Your task to perform on an android device: Open Youtube and go to "Your channel" Image 0: 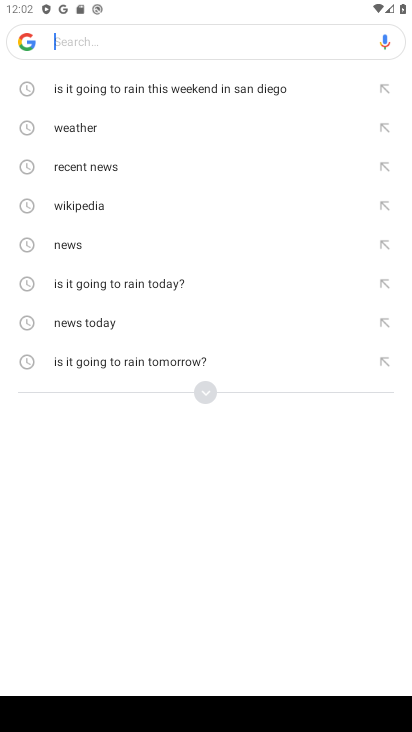
Step 0: press home button
Your task to perform on an android device: Open Youtube and go to "Your channel" Image 1: 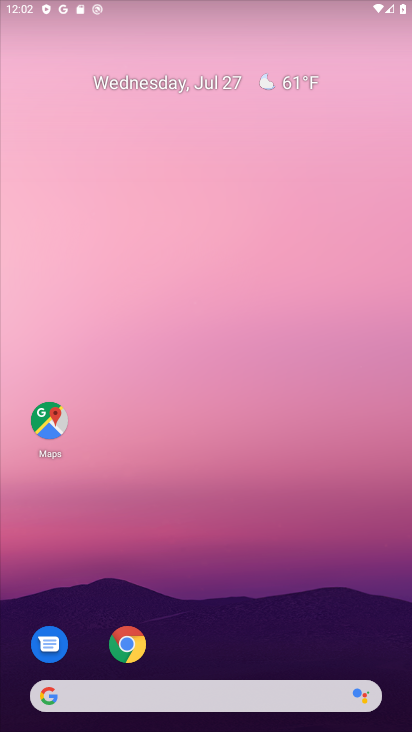
Step 1: drag from (152, 517) to (233, 30)
Your task to perform on an android device: Open Youtube and go to "Your channel" Image 2: 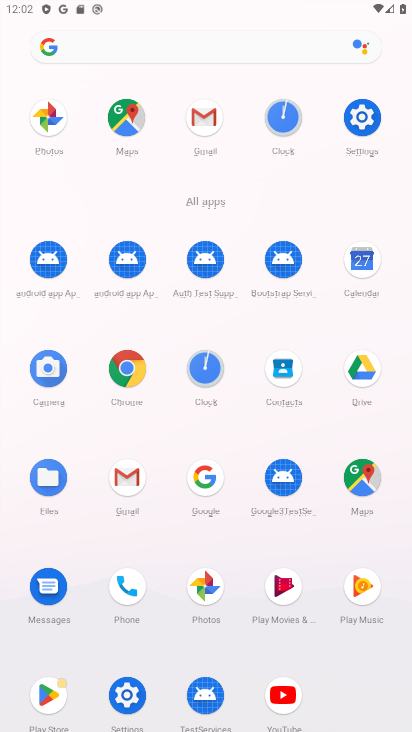
Step 2: click (277, 695)
Your task to perform on an android device: Open Youtube and go to "Your channel" Image 3: 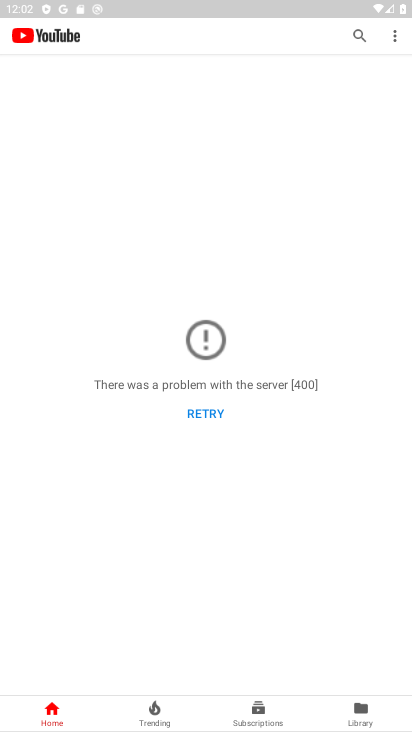
Step 3: drag from (231, 555) to (293, 315)
Your task to perform on an android device: Open Youtube and go to "Your channel" Image 4: 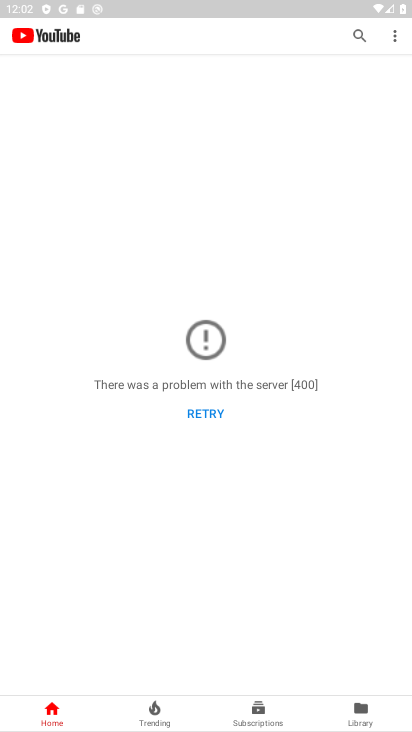
Step 4: click (362, 706)
Your task to perform on an android device: Open Youtube and go to "Your channel" Image 5: 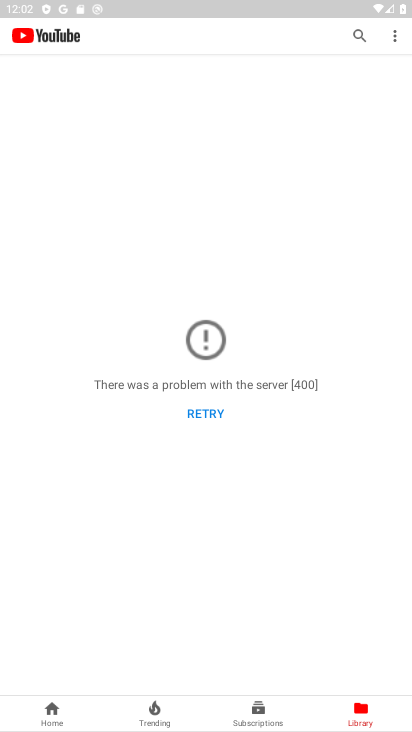
Step 5: task complete